Your task to perform on an android device: add a contact Image 0: 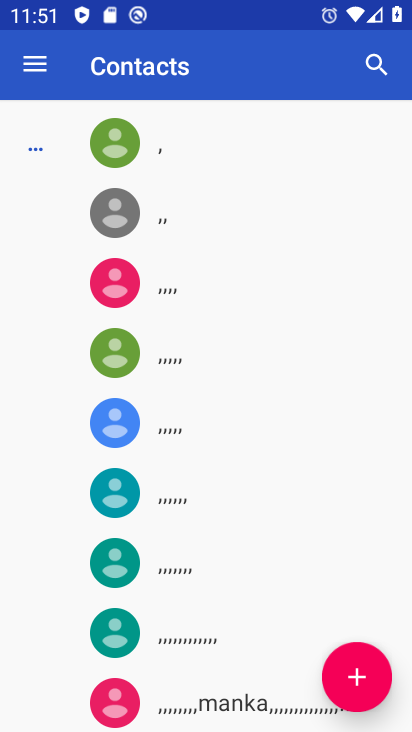
Step 0: click (364, 677)
Your task to perform on an android device: add a contact Image 1: 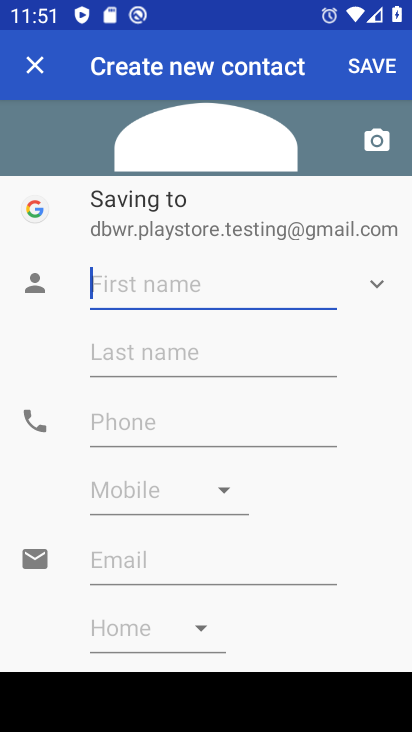
Step 1: click (178, 284)
Your task to perform on an android device: add a contact Image 2: 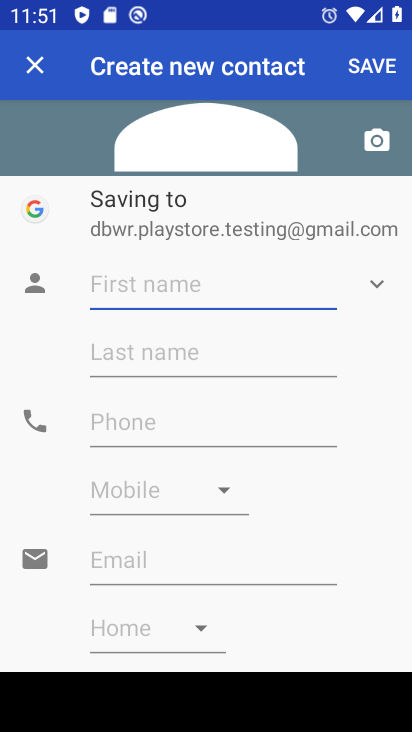
Step 2: type ""
Your task to perform on an android device: add a contact Image 3: 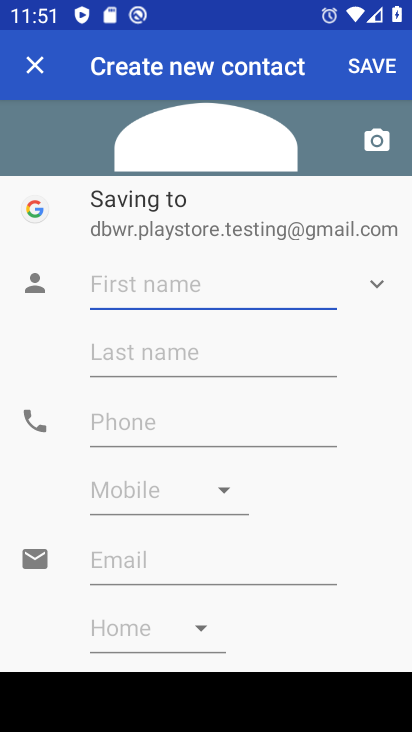
Step 3: type "mayank"
Your task to perform on an android device: add a contact Image 4: 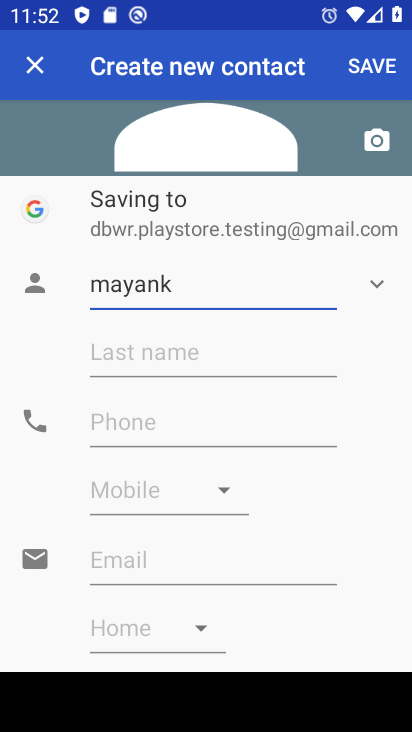
Step 4: click (167, 440)
Your task to perform on an android device: add a contact Image 5: 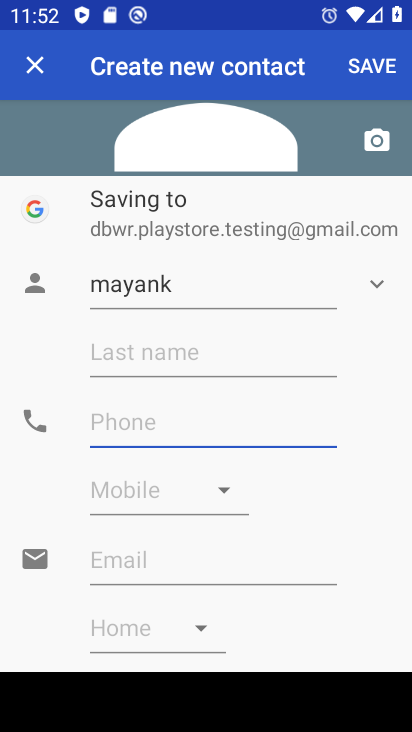
Step 5: type "98876655443"
Your task to perform on an android device: add a contact Image 6: 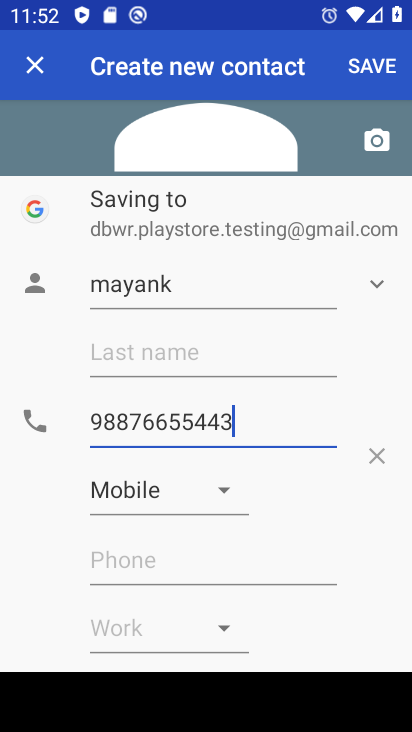
Step 6: click (369, 67)
Your task to perform on an android device: add a contact Image 7: 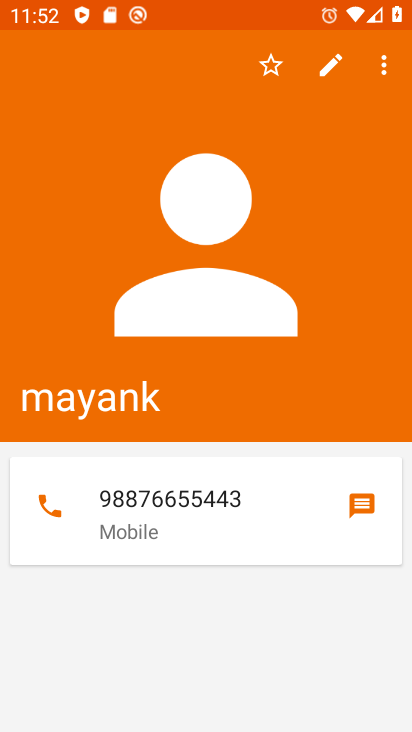
Step 7: task complete